Your task to perform on an android device: Go to accessibility settings Image 0: 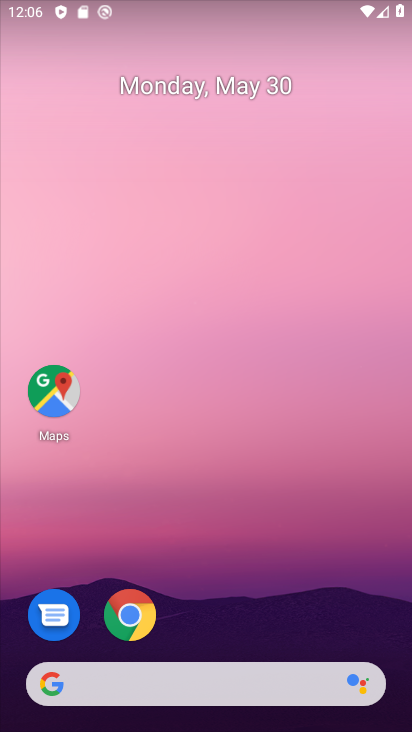
Step 0: drag from (199, 536) to (284, 7)
Your task to perform on an android device: Go to accessibility settings Image 1: 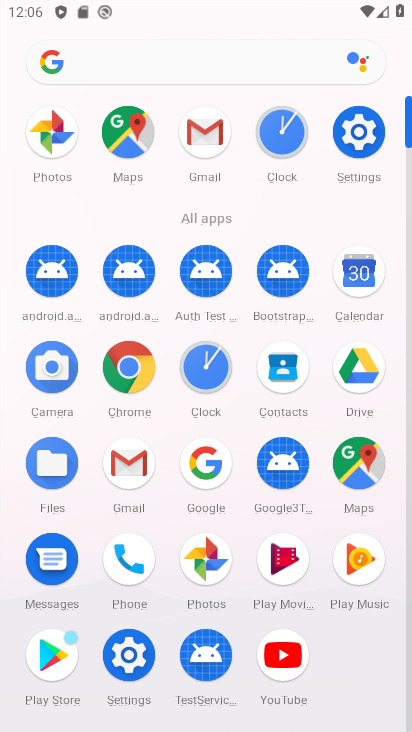
Step 1: click (349, 140)
Your task to perform on an android device: Go to accessibility settings Image 2: 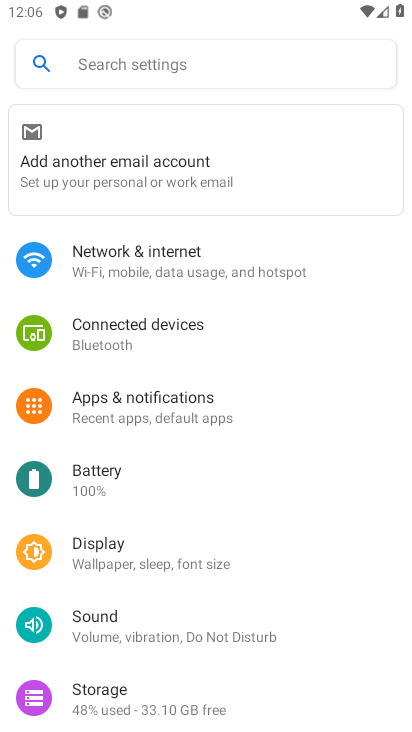
Step 2: drag from (155, 644) to (168, 288)
Your task to perform on an android device: Go to accessibility settings Image 3: 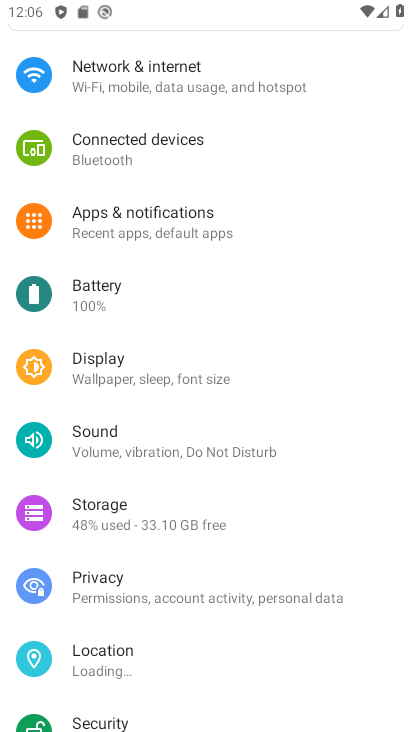
Step 3: drag from (161, 711) to (111, 270)
Your task to perform on an android device: Go to accessibility settings Image 4: 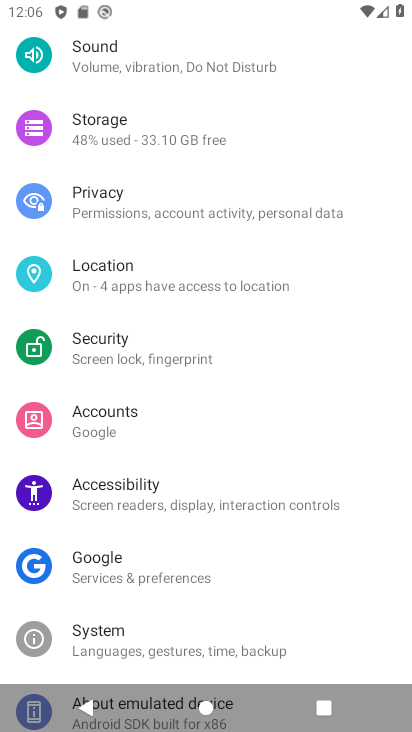
Step 4: drag from (169, 661) to (179, 362)
Your task to perform on an android device: Go to accessibility settings Image 5: 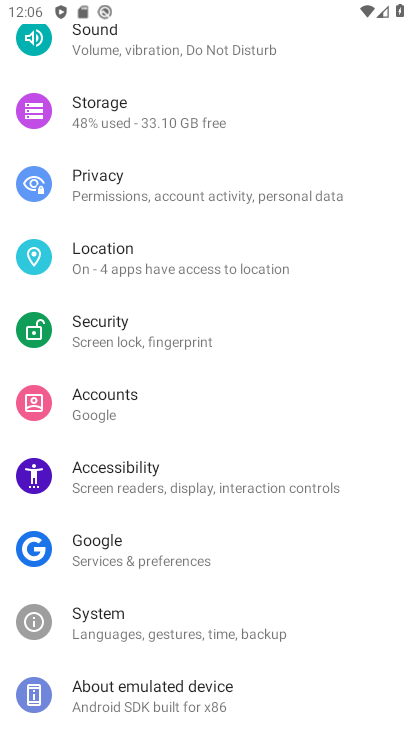
Step 5: click (138, 493)
Your task to perform on an android device: Go to accessibility settings Image 6: 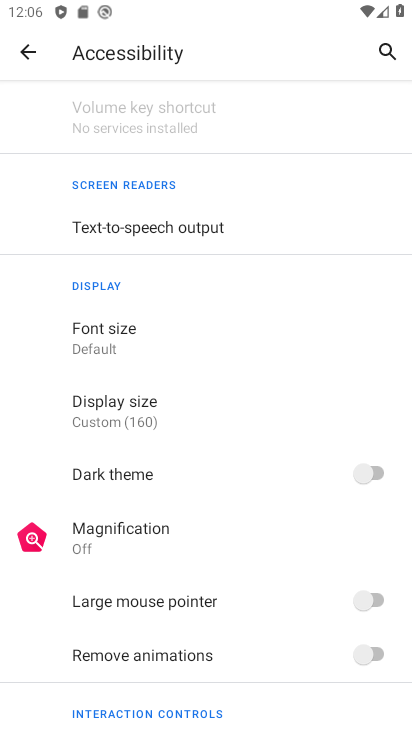
Step 6: task complete